Your task to perform on an android device: Open notification settings Image 0: 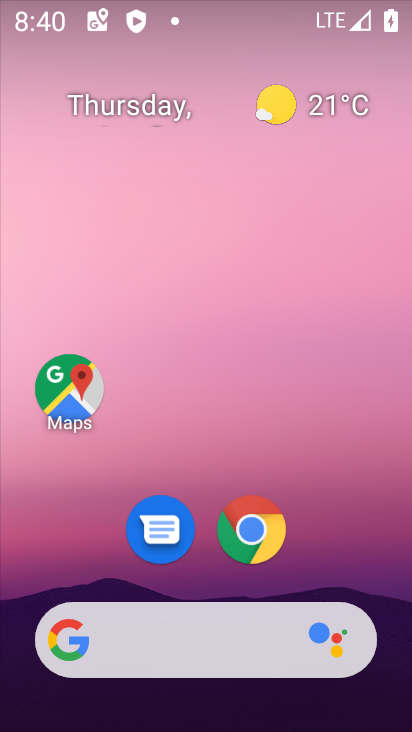
Step 0: drag from (217, 709) to (310, 349)
Your task to perform on an android device: Open notification settings Image 1: 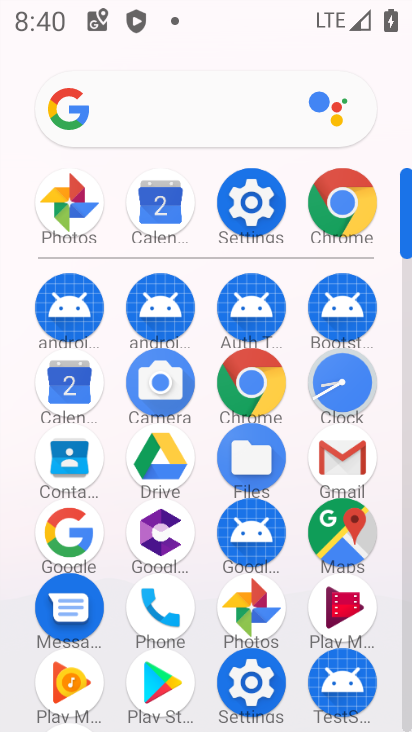
Step 1: click (261, 199)
Your task to perform on an android device: Open notification settings Image 2: 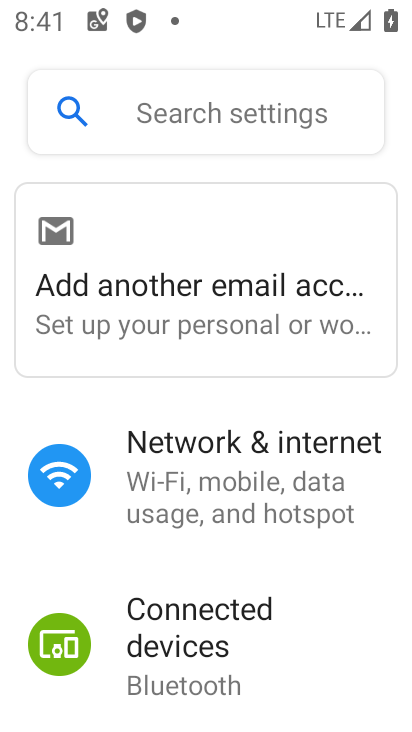
Step 2: drag from (315, 665) to (367, 180)
Your task to perform on an android device: Open notification settings Image 3: 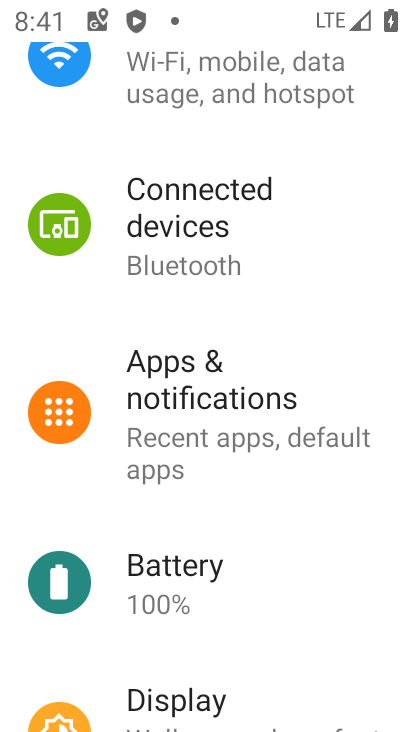
Step 3: click (184, 403)
Your task to perform on an android device: Open notification settings Image 4: 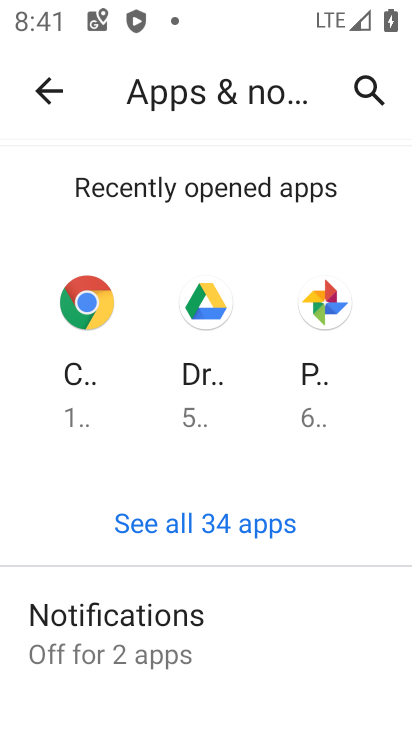
Step 4: task complete